Your task to perform on an android device: turn on notifications settings in the gmail app Image 0: 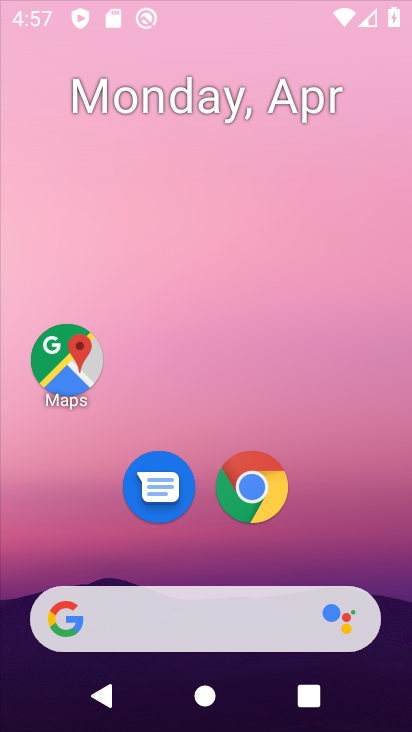
Step 0: click (296, 163)
Your task to perform on an android device: turn on notifications settings in the gmail app Image 1: 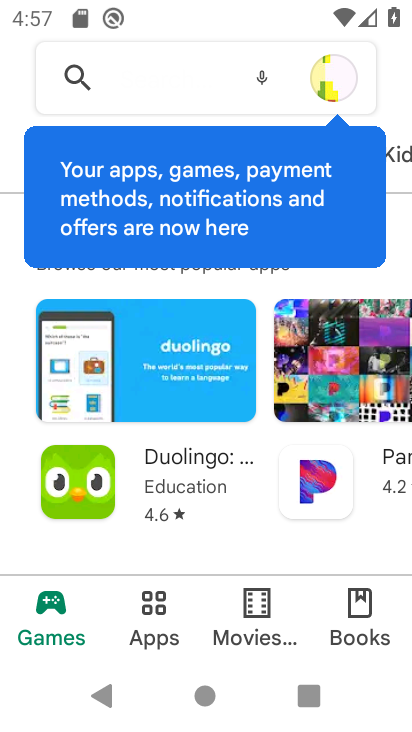
Step 1: press home button
Your task to perform on an android device: turn on notifications settings in the gmail app Image 2: 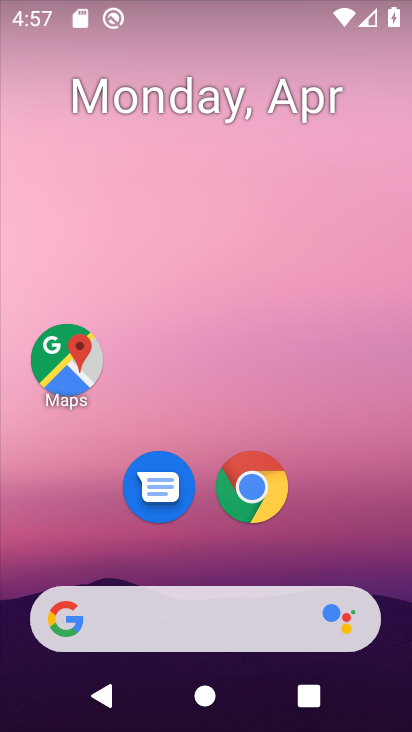
Step 2: drag from (365, 506) to (240, 7)
Your task to perform on an android device: turn on notifications settings in the gmail app Image 3: 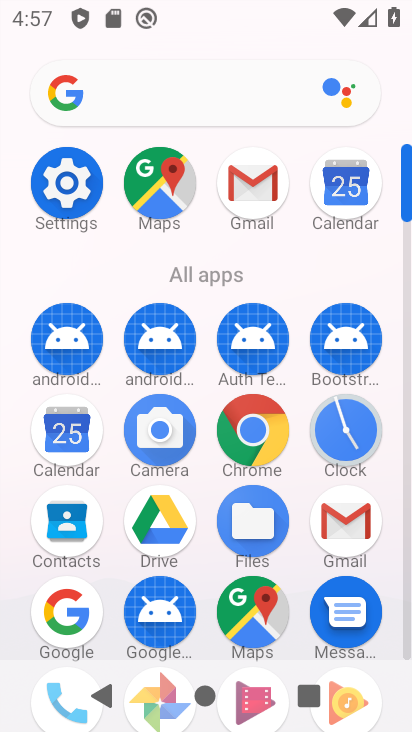
Step 3: click (361, 525)
Your task to perform on an android device: turn on notifications settings in the gmail app Image 4: 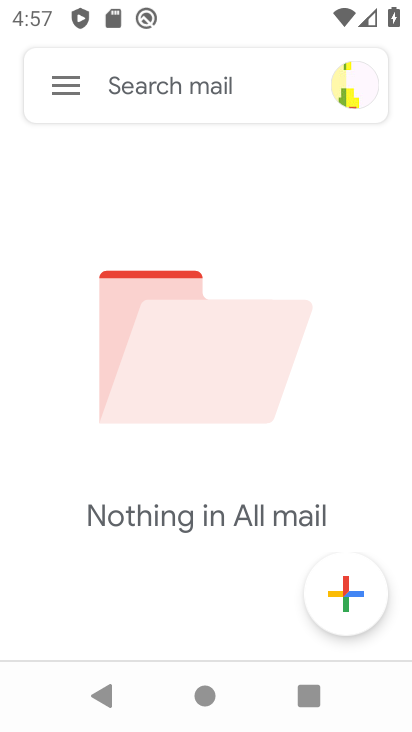
Step 4: click (72, 105)
Your task to perform on an android device: turn on notifications settings in the gmail app Image 5: 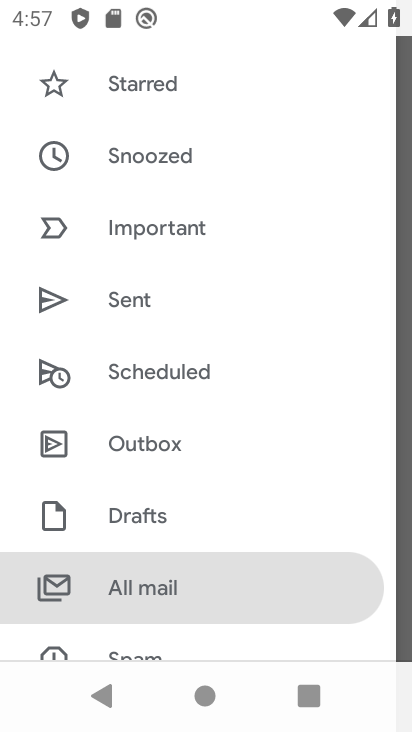
Step 5: drag from (238, 265) to (234, 624)
Your task to perform on an android device: turn on notifications settings in the gmail app Image 6: 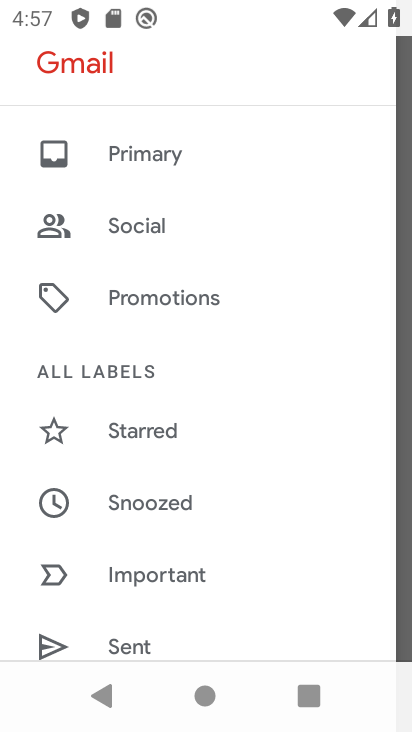
Step 6: drag from (234, 624) to (257, 57)
Your task to perform on an android device: turn on notifications settings in the gmail app Image 7: 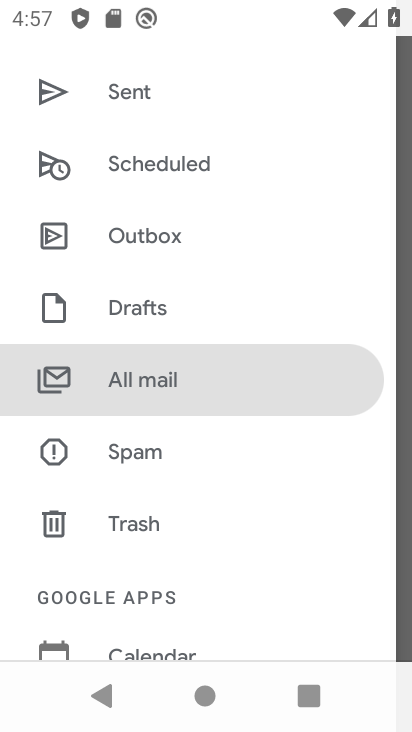
Step 7: drag from (312, 560) to (287, 55)
Your task to perform on an android device: turn on notifications settings in the gmail app Image 8: 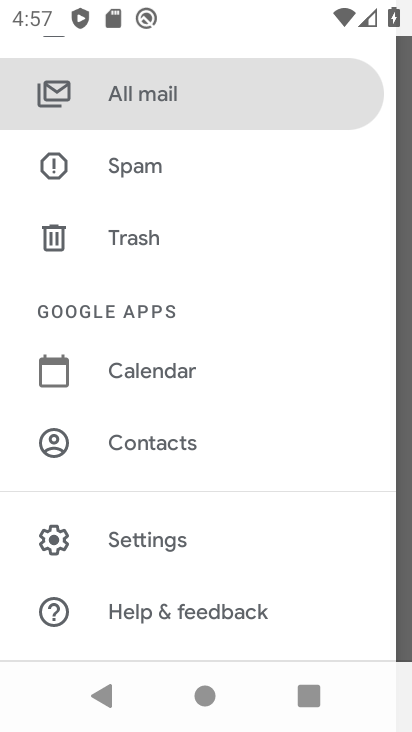
Step 8: click (255, 546)
Your task to perform on an android device: turn on notifications settings in the gmail app Image 9: 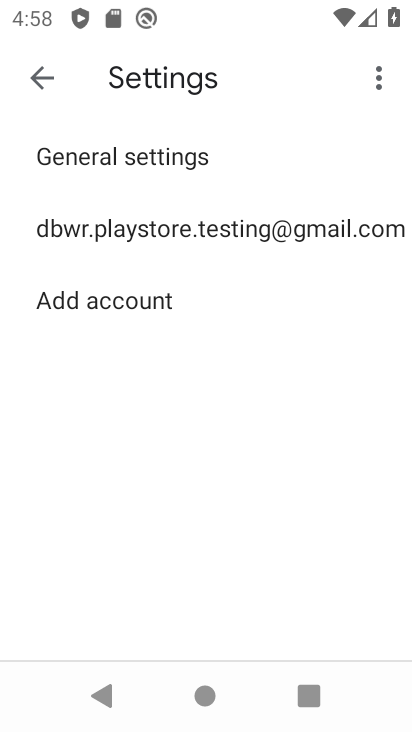
Step 9: click (299, 238)
Your task to perform on an android device: turn on notifications settings in the gmail app Image 10: 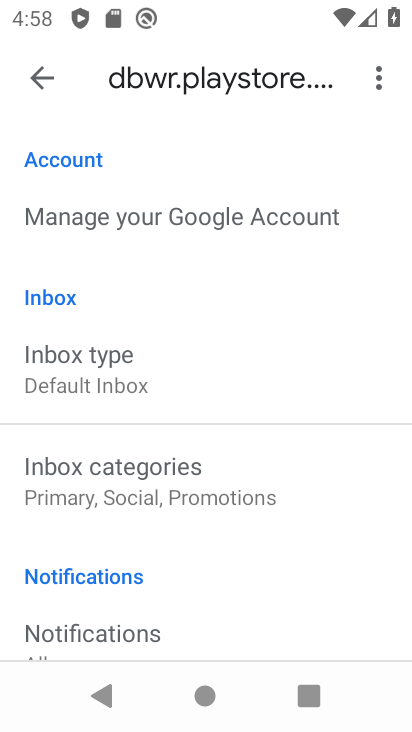
Step 10: drag from (302, 623) to (230, 162)
Your task to perform on an android device: turn on notifications settings in the gmail app Image 11: 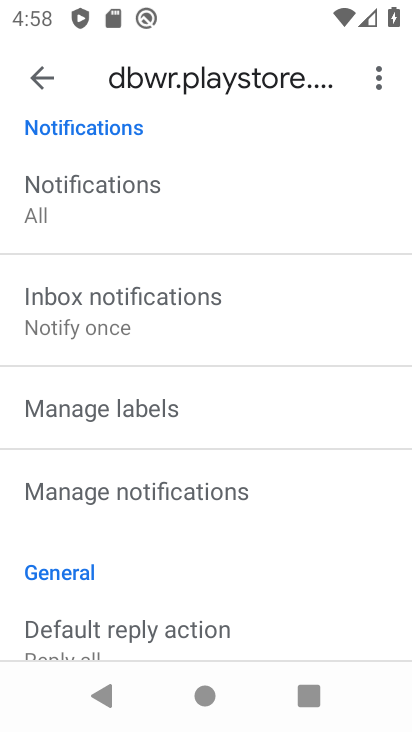
Step 11: click (279, 491)
Your task to perform on an android device: turn on notifications settings in the gmail app Image 12: 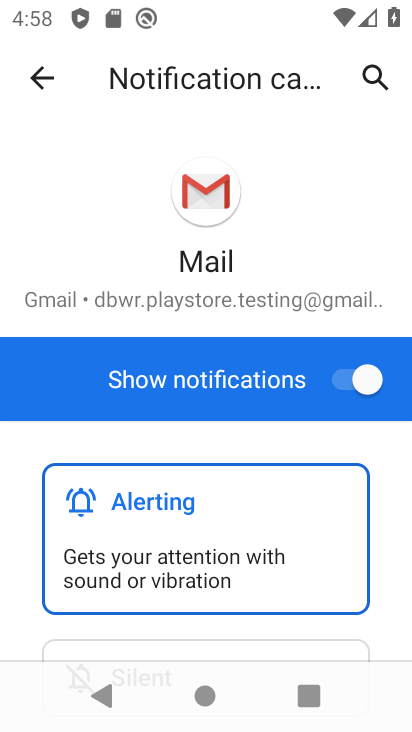
Step 12: drag from (403, 643) to (292, 244)
Your task to perform on an android device: turn on notifications settings in the gmail app Image 13: 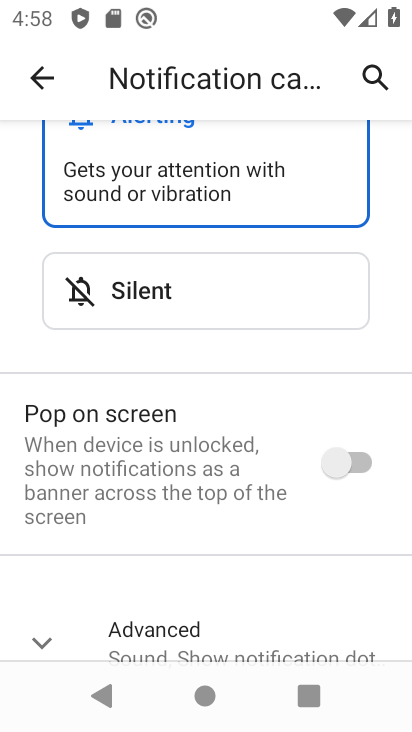
Step 13: click (359, 455)
Your task to perform on an android device: turn on notifications settings in the gmail app Image 14: 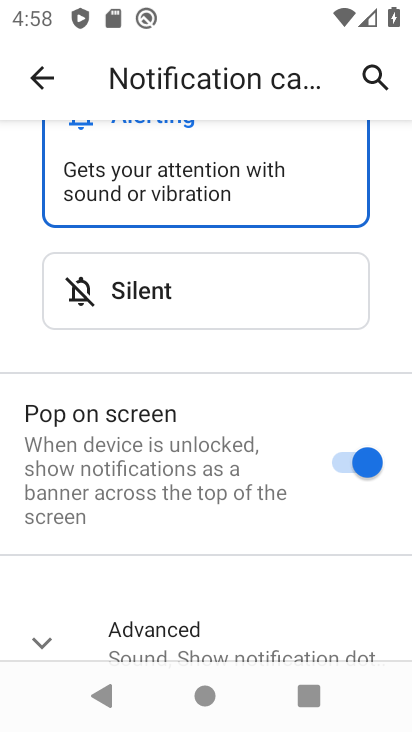
Step 14: task complete